Your task to perform on an android device: manage bookmarks in the chrome app Image 0: 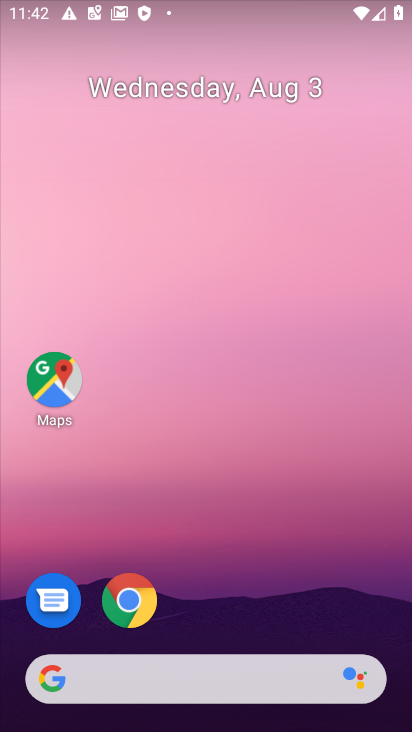
Step 0: click (129, 602)
Your task to perform on an android device: manage bookmarks in the chrome app Image 1: 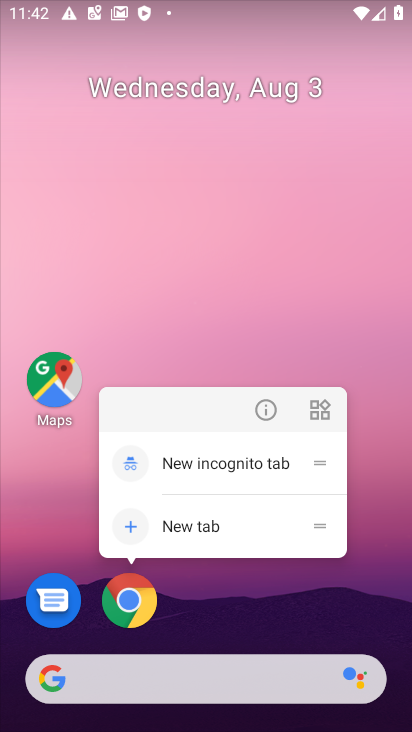
Step 1: click (130, 601)
Your task to perform on an android device: manage bookmarks in the chrome app Image 2: 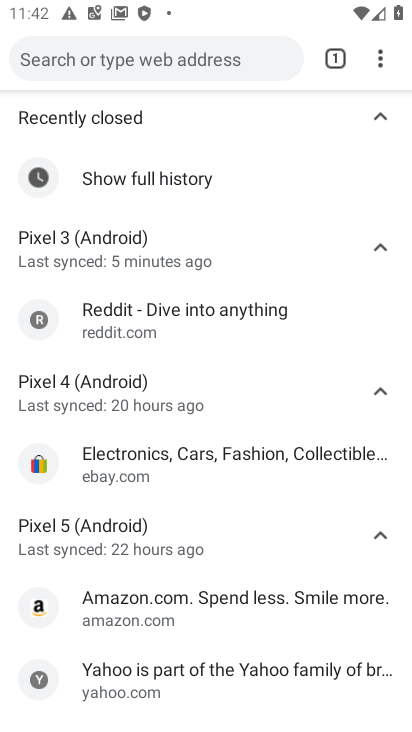
Step 2: drag from (374, 56) to (250, 291)
Your task to perform on an android device: manage bookmarks in the chrome app Image 3: 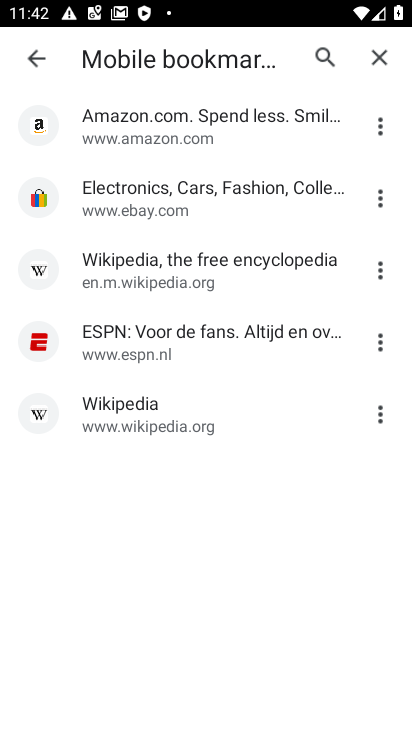
Step 3: click (382, 126)
Your task to perform on an android device: manage bookmarks in the chrome app Image 4: 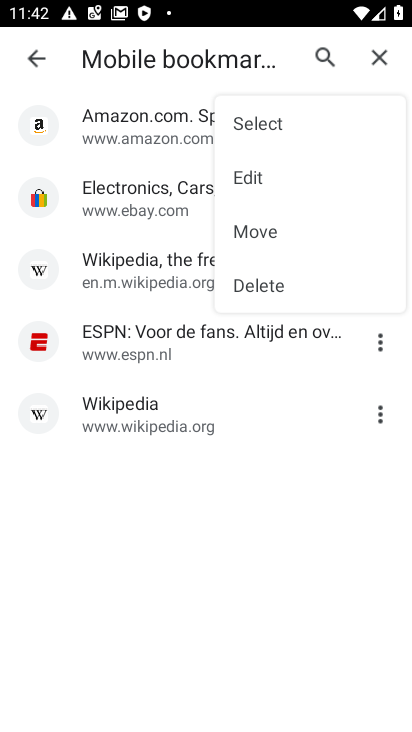
Step 4: click (271, 233)
Your task to perform on an android device: manage bookmarks in the chrome app Image 5: 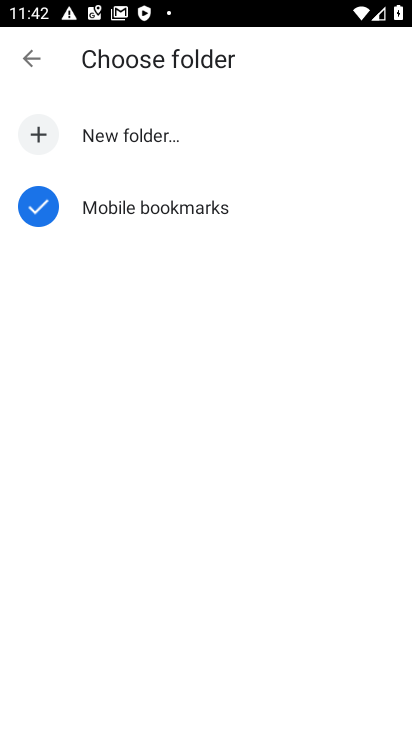
Step 5: click (155, 209)
Your task to perform on an android device: manage bookmarks in the chrome app Image 6: 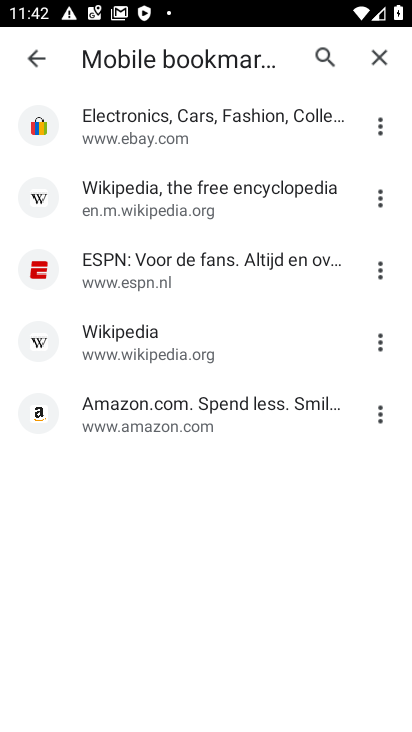
Step 6: task complete